Your task to perform on an android device: delete browsing data in the chrome app Image 0: 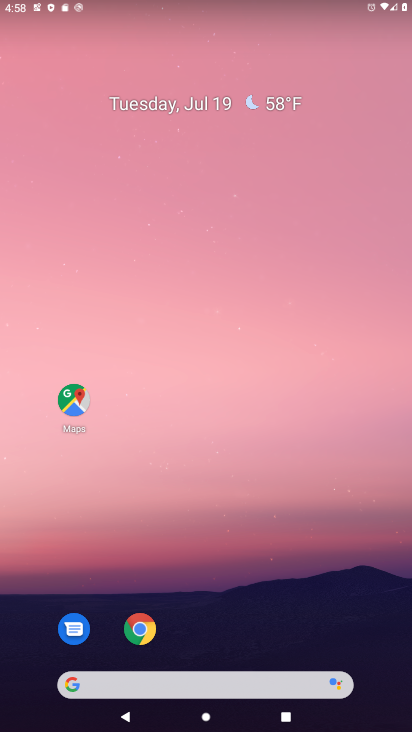
Step 0: click (218, 100)
Your task to perform on an android device: delete browsing data in the chrome app Image 1: 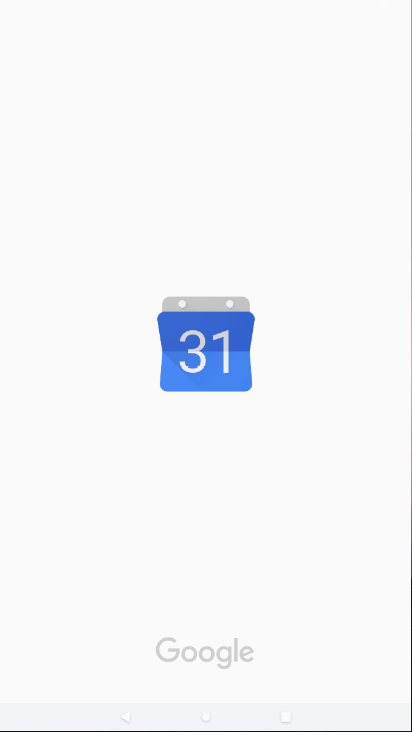
Step 1: drag from (225, 664) to (211, 184)
Your task to perform on an android device: delete browsing data in the chrome app Image 2: 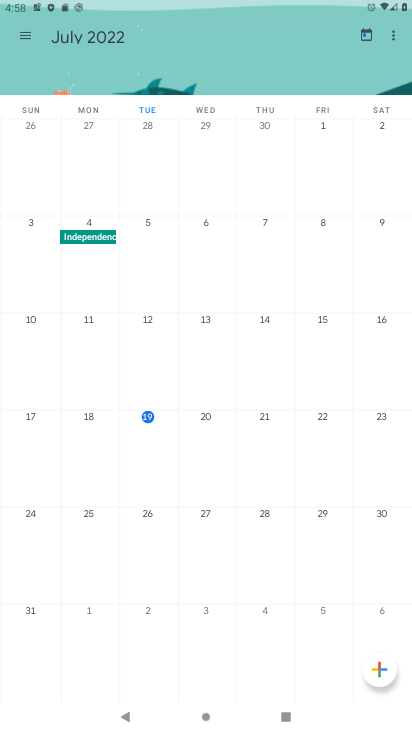
Step 2: press back button
Your task to perform on an android device: delete browsing data in the chrome app Image 3: 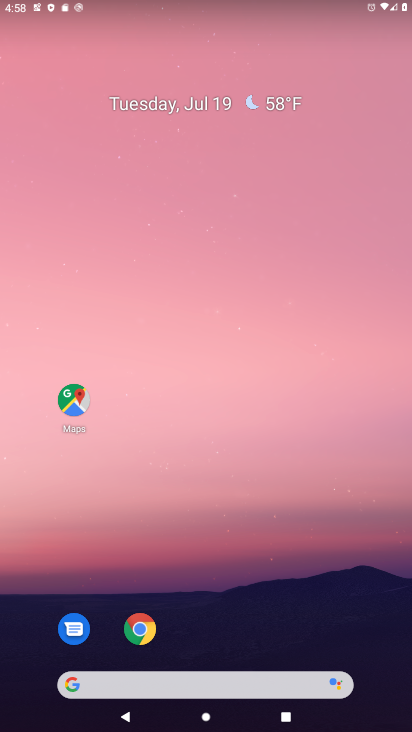
Step 3: drag from (200, 603) to (96, 97)
Your task to perform on an android device: delete browsing data in the chrome app Image 4: 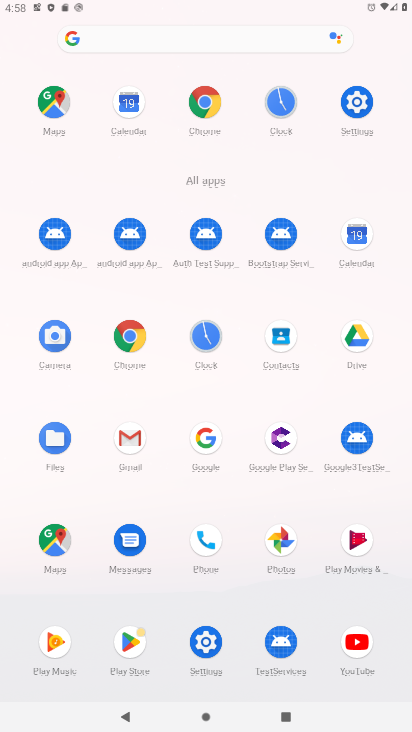
Step 4: click (208, 103)
Your task to perform on an android device: delete browsing data in the chrome app Image 5: 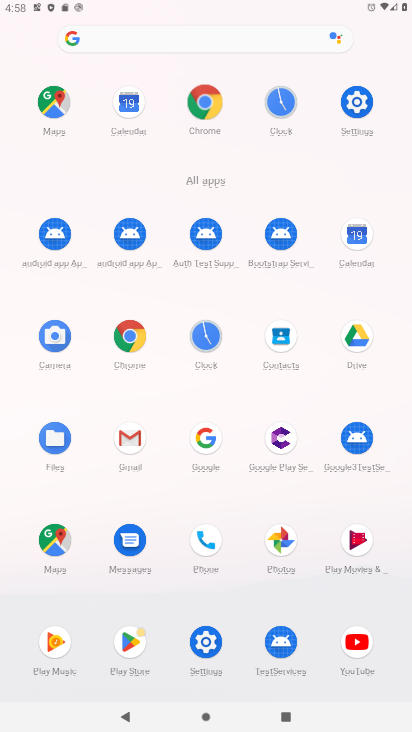
Step 5: click (208, 103)
Your task to perform on an android device: delete browsing data in the chrome app Image 6: 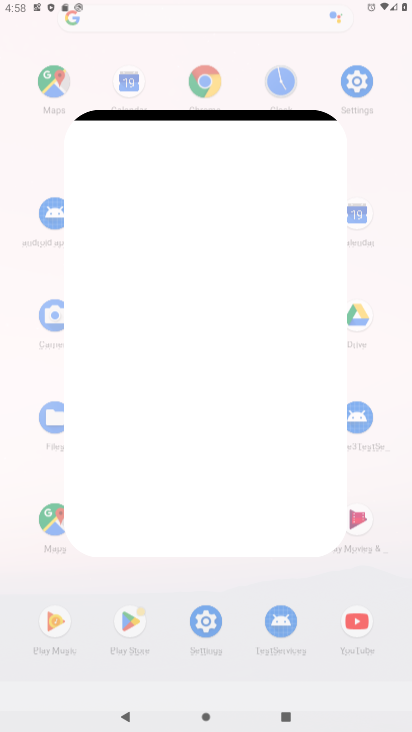
Step 6: click (209, 103)
Your task to perform on an android device: delete browsing data in the chrome app Image 7: 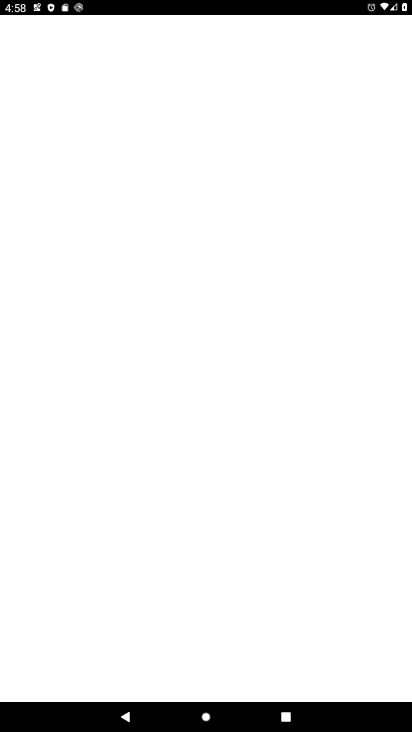
Step 7: click (208, 102)
Your task to perform on an android device: delete browsing data in the chrome app Image 8: 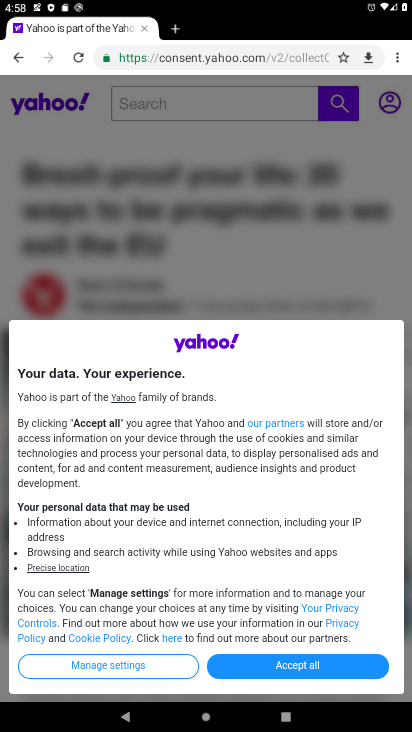
Step 8: click (398, 51)
Your task to perform on an android device: delete browsing data in the chrome app Image 9: 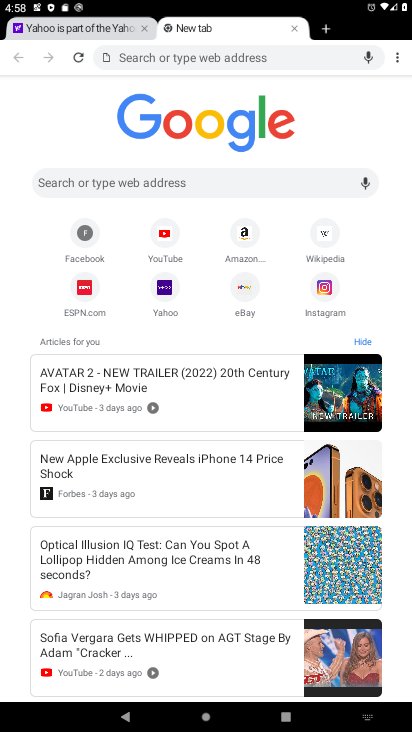
Step 9: drag from (399, 54) to (262, 179)
Your task to perform on an android device: delete browsing data in the chrome app Image 10: 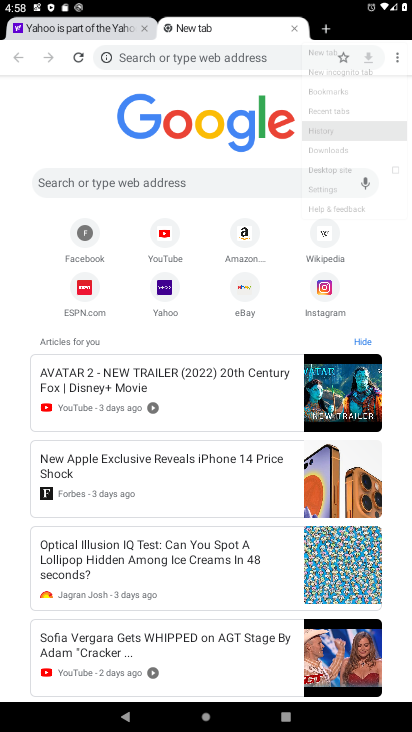
Step 10: click (264, 177)
Your task to perform on an android device: delete browsing data in the chrome app Image 11: 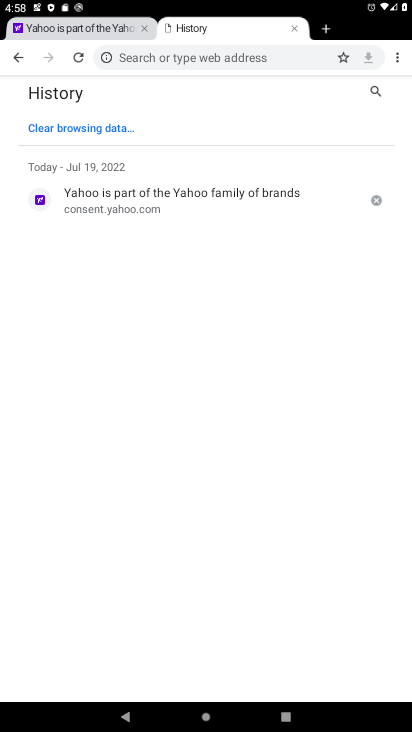
Step 11: click (369, 188)
Your task to perform on an android device: delete browsing data in the chrome app Image 12: 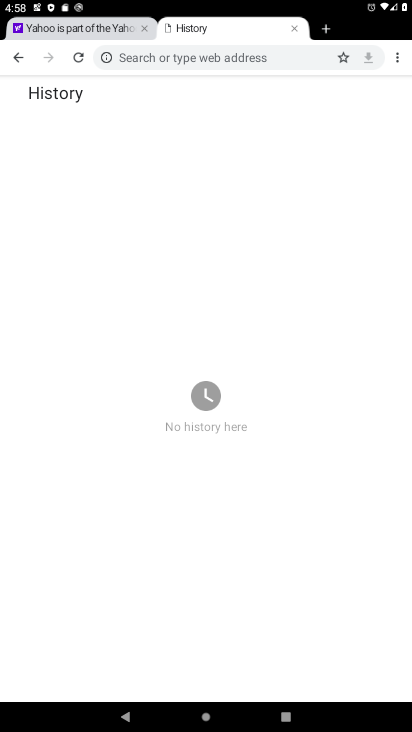
Step 12: task complete